Your task to perform on an android device: Open Google Chrome and open the bookmarks view Image 0: 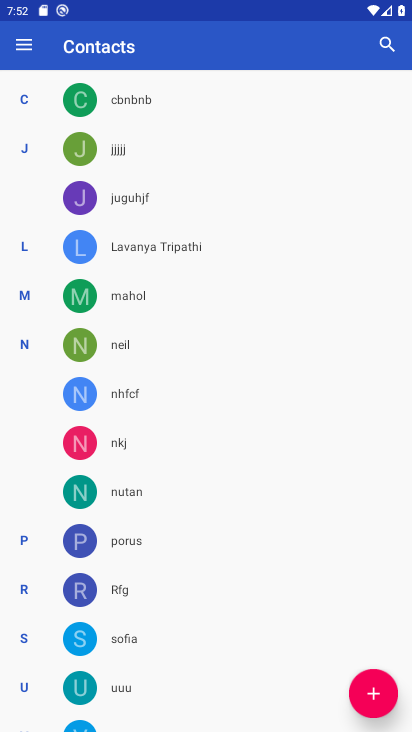
Step 0: press home button
Your task to perform on an android device: Open Google Chrome and open the bookmarks view Image 1: 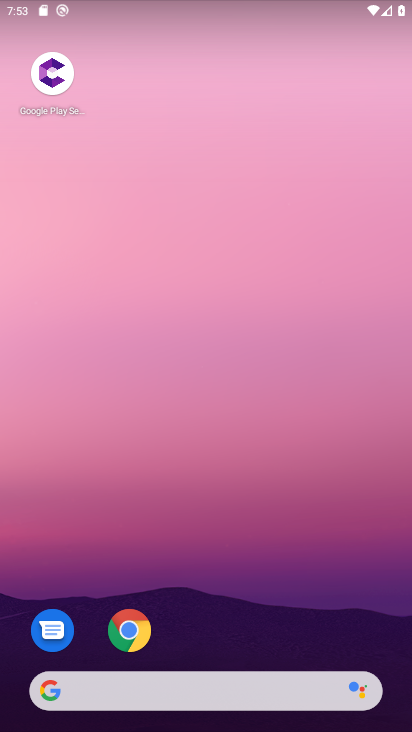
Step 1: click (143, 644)
Your task to perform on an android device: Open Google Chrome and open the bookmarks view Image 2: 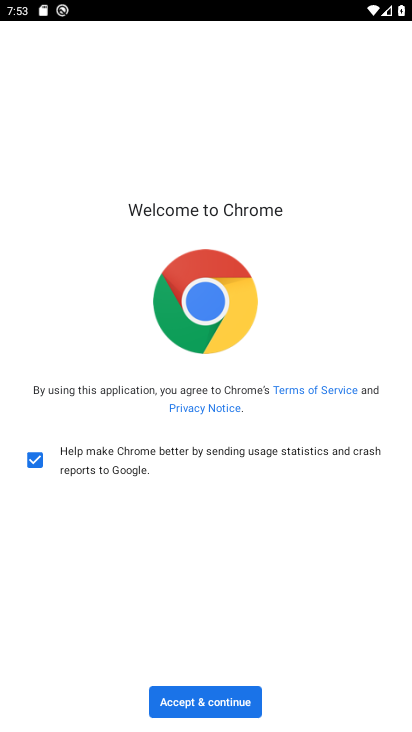
Step 2: click (224, 692)
Your task to perform on an android device: Open Google Chrome and open the bookmarks view Image 3: 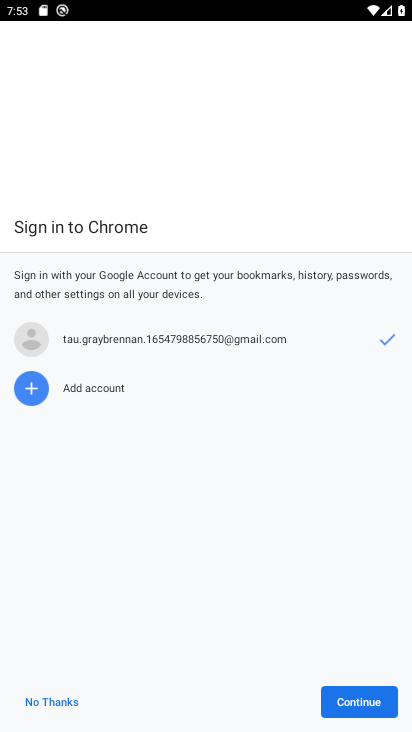
Step 3: click (338, 702)
Your task to perform on an android device: Open Google Chrome and open the bookmarks view Image 4: 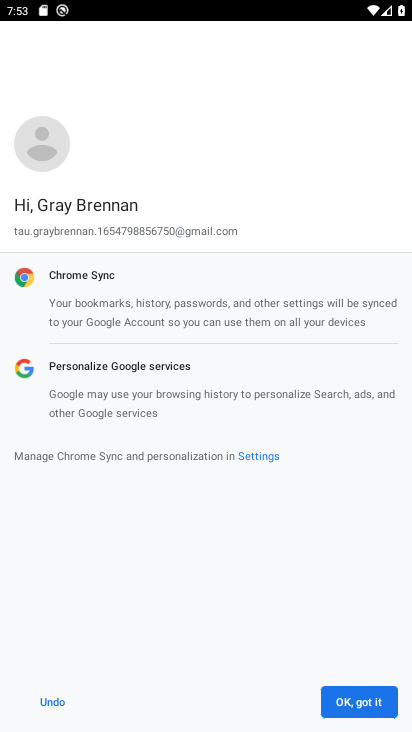
Step 4: click (366, 709)
Your task to perform on an android device: Open Google Chrome and open the bookmarks view Image 5: 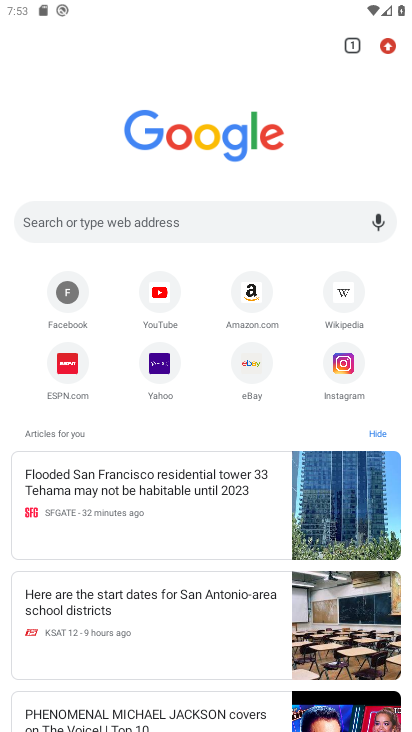
Step 5: click (389, 44)
Your task to perform on an android device: Open Google Chrome and open the bookmarks view Image 6: 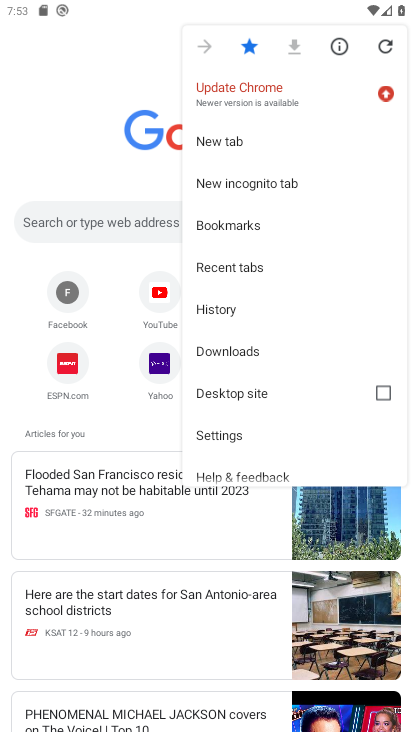
Step 6: click (240, 223)
Your task to perform on an android device: Open Google Chrome and open the bookmarks view Image 7: 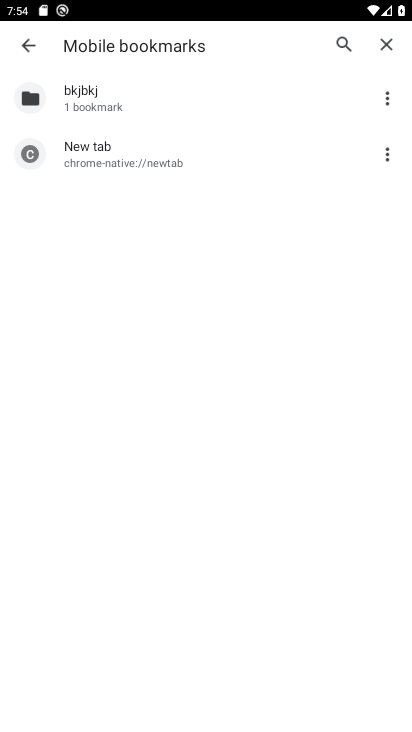
Step 7: task complete